Your task to perform on an android device: delete browsing data in the chrome app Image 0: 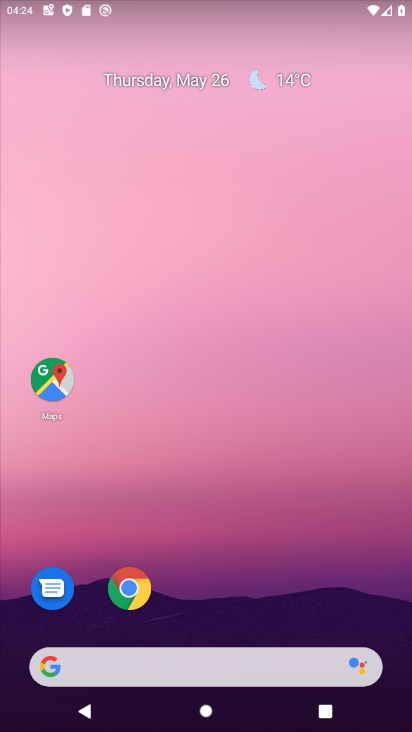
Step 0: drag from (256, 599) to (291, 224)
Your task to perform on an android device: delete browsing data in the chrome app Image 1: 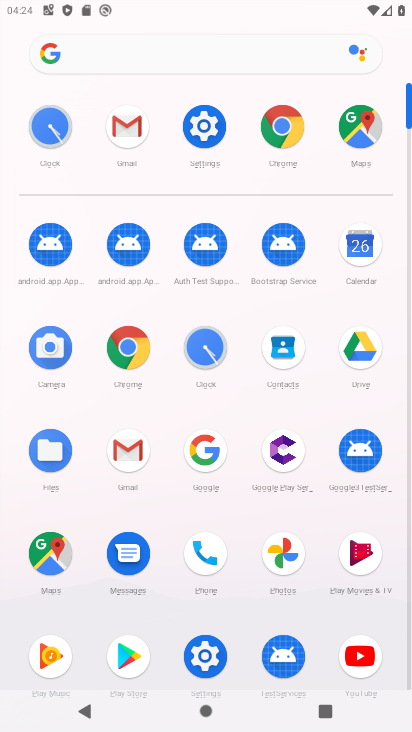
Step 1: click (274, 142)
Your task to perform on an android device: delete browsing data in the chrome app Image 2: 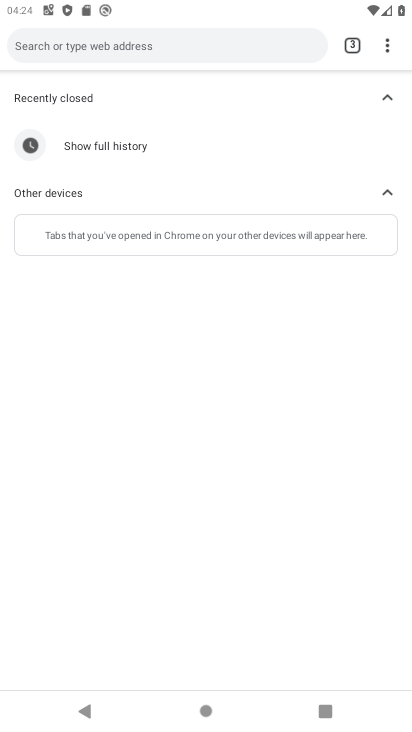
Step 2: click (381, 55)
Your task to perform on an android device: delete browsing data in the chrome app Image 3: 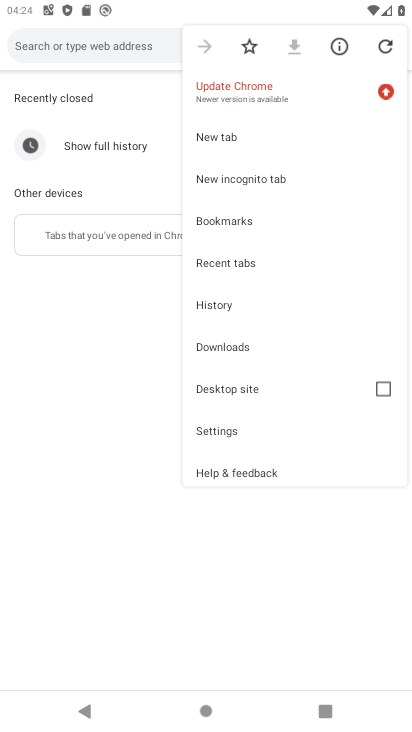
Step 3: click (233, 425)
Your task to perform on an android device: delete browsing data in the chrome app Image 4: 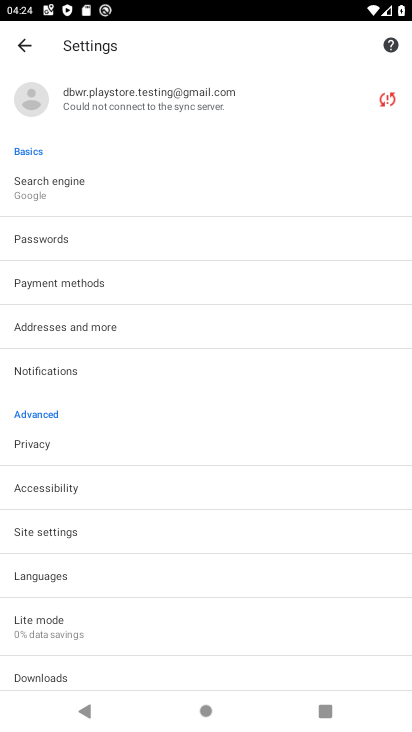
Step 4: click (17, 51)
Your task to perform on an android device: delete browsing data in the chrome app Image 5: 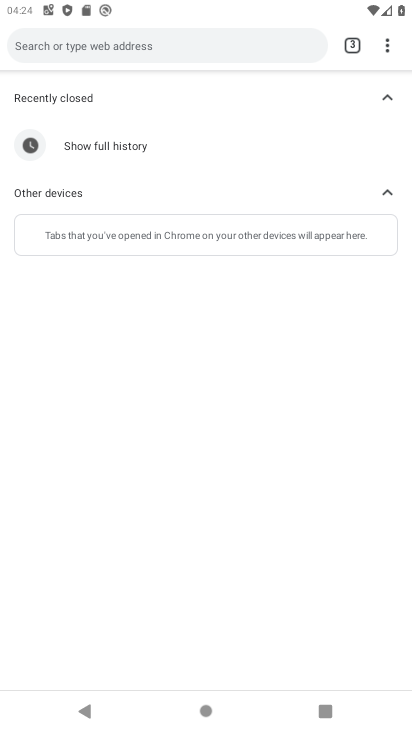
Step 5: click (396, 46)
Your task to perform on an android device: delete browsing data in the chrome app Image 6: 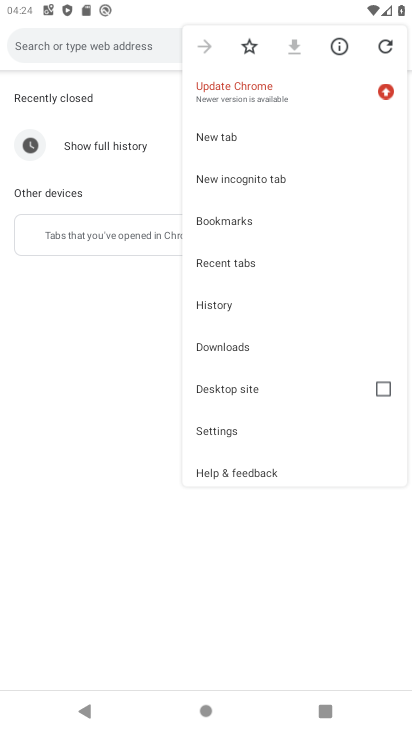
Step 6: click (233, 294)
Your task to perform on an android device: delete browsing data in the chrome app Image 7: 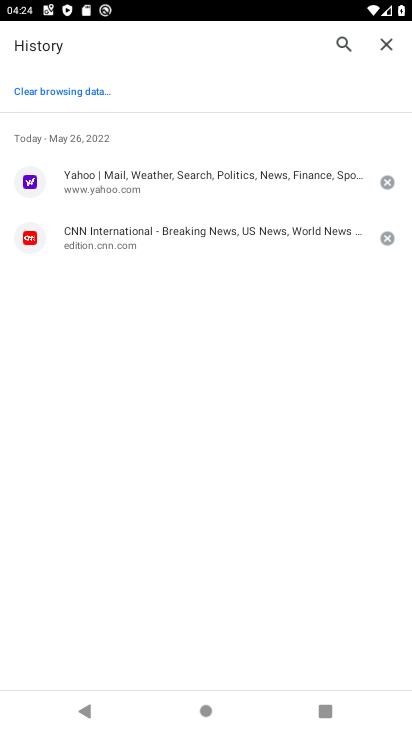
Step 7: click (84, 94)
Your task to perform on an android device: delete browsing data in the chrome app Image 8: 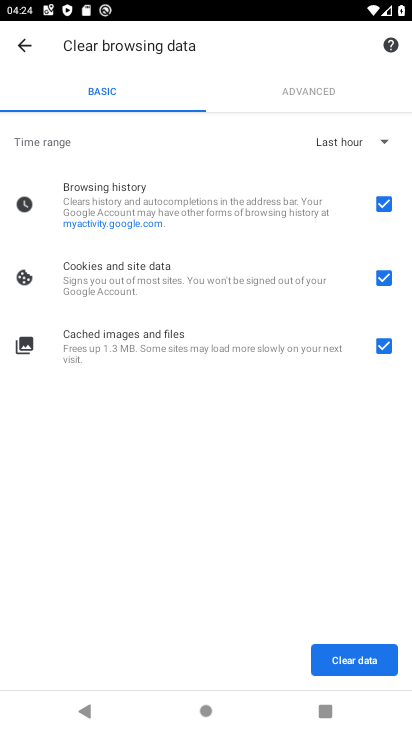
Step 8: click (343, 647)
Your task to perform on an android device: delete browsing data in the chrome app Image 9: 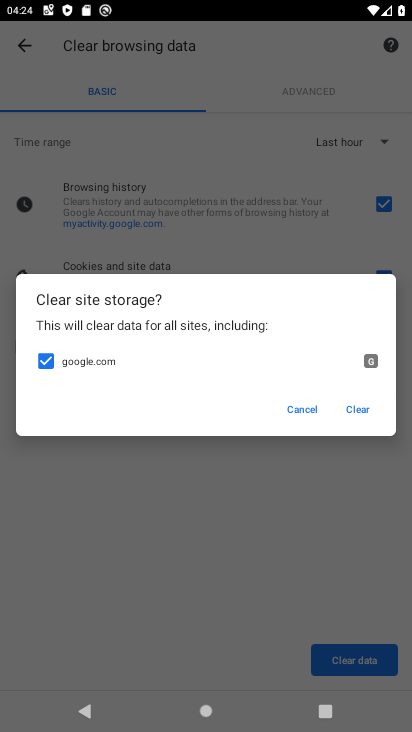
Step 9: click (359, 401)
Your task to perform on an android device: delete browsing data in the chrome app Image 10: 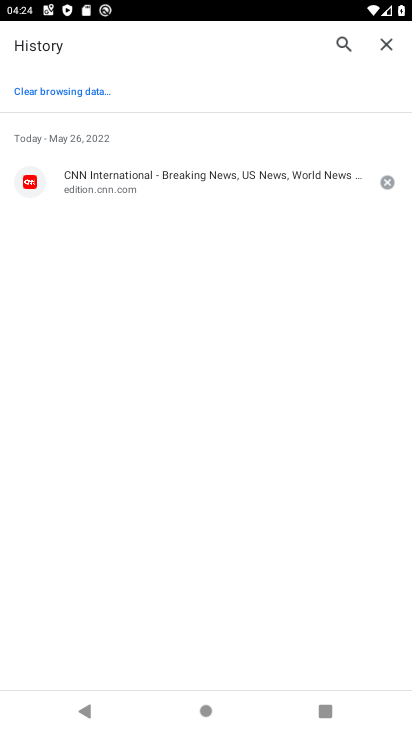
Step 10: task complete